Your task to perform on an android device: turn on airplane mode Image 0: 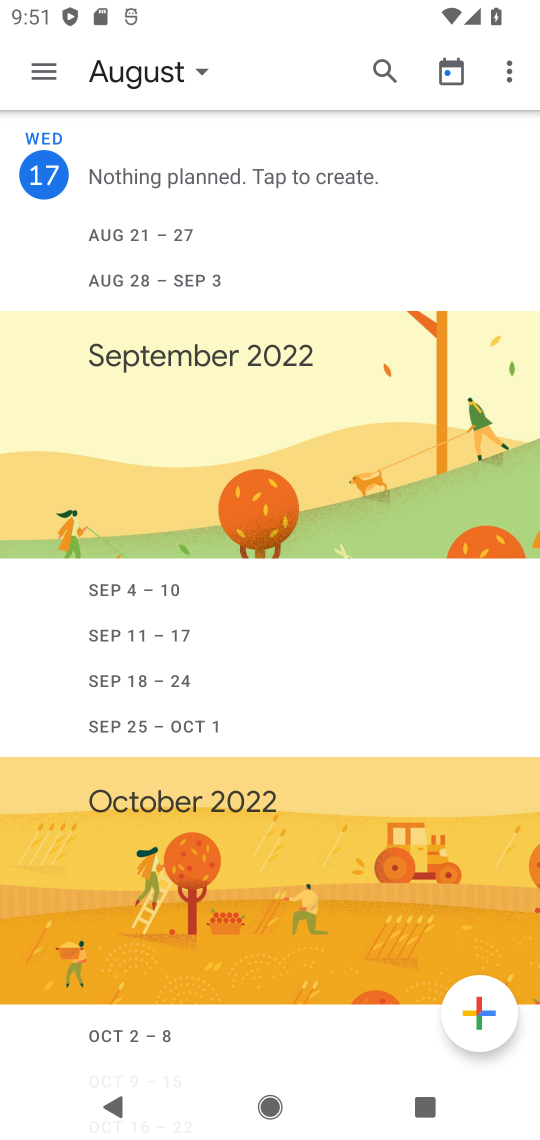
Step 0: press home button
Your task to perform on an android device: turn on airplane mode Image 1: 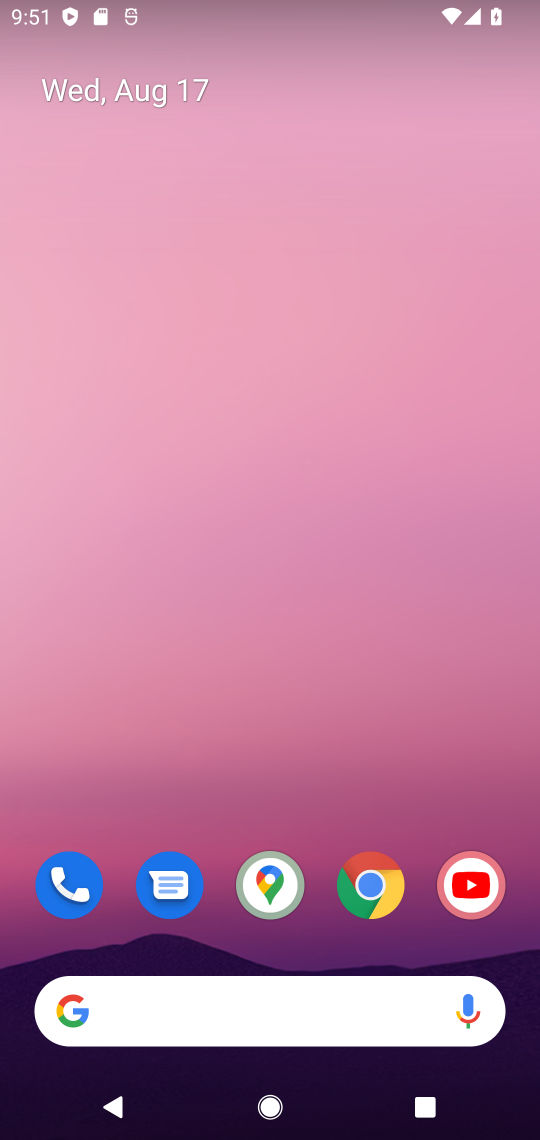
Step 1: drag from (416, 936) to (354, 56)
Your task to perform on an android device: turn on airplane mode Image 2: 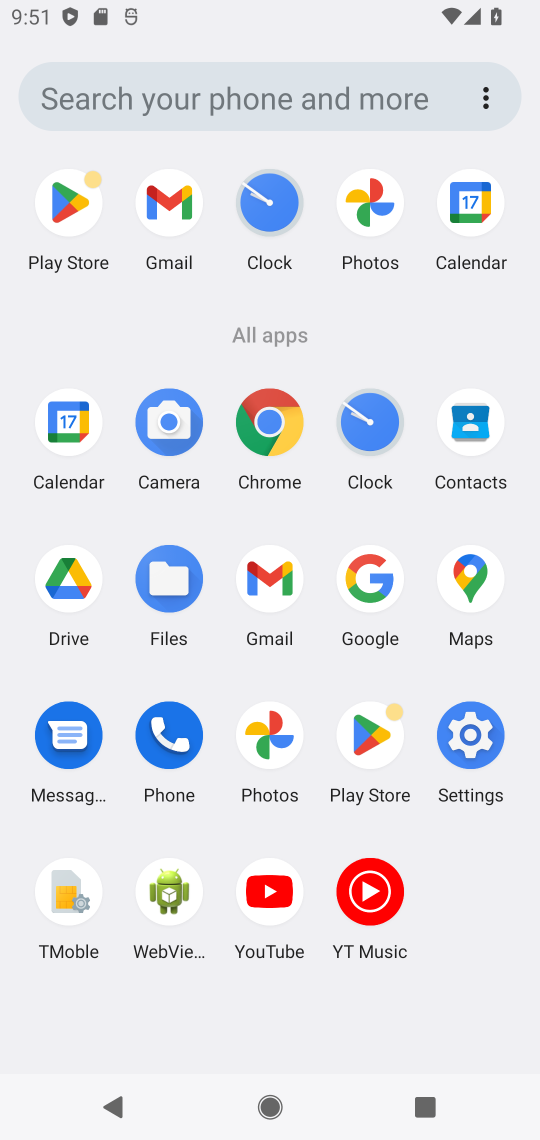
Step 2: click (468, 736)
Your task to perform on an android device: turn on airplane mode Image 3: 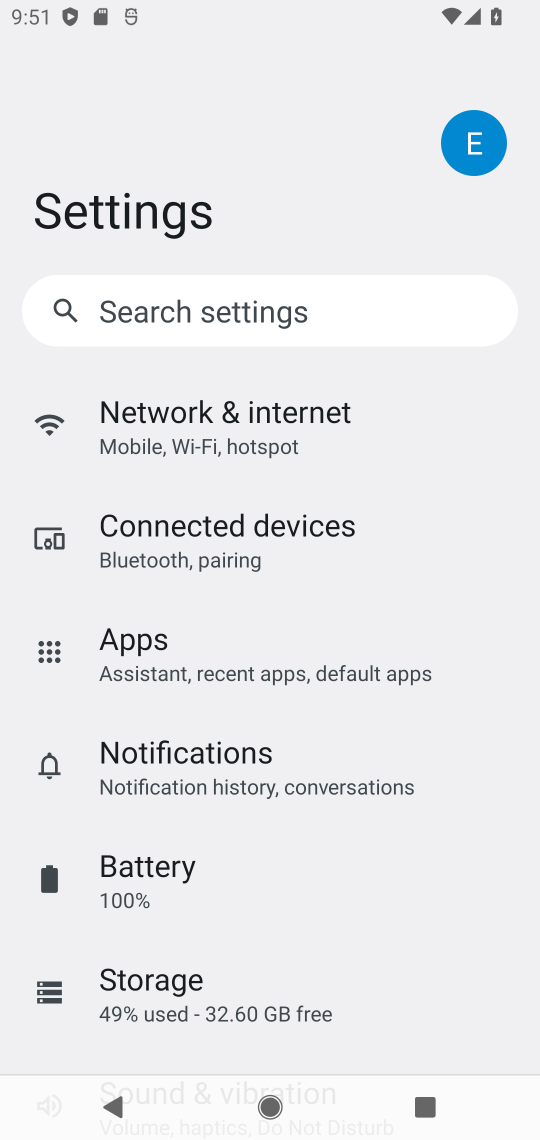
Step 3: click (170, 438)
Your task to perform on an android device: turn on airplane mode Image 4: 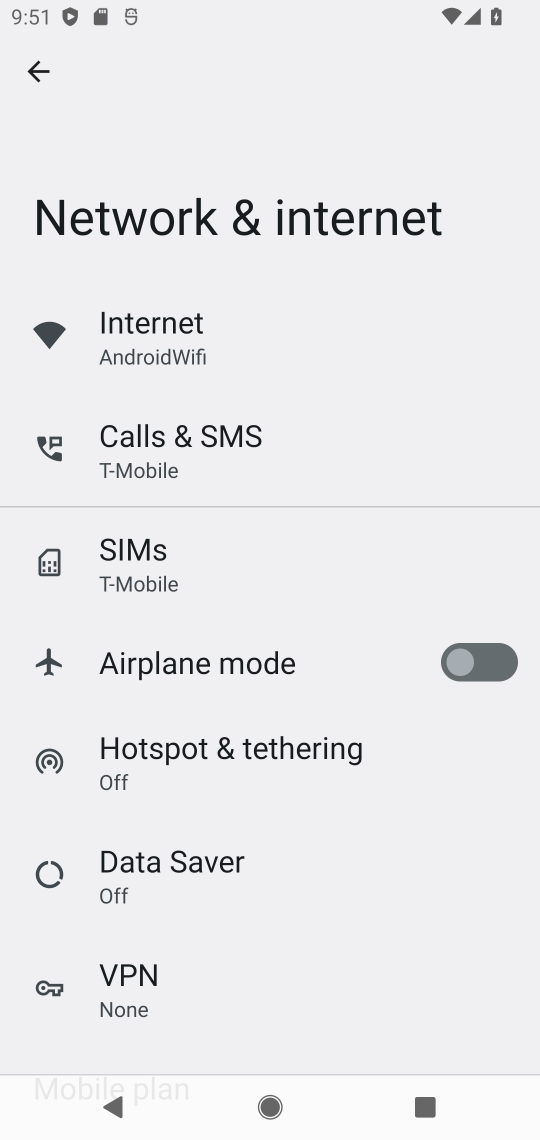
Step 4: click (492, 654)
Your task to perform on an android device: turn on airplane mode Image 5: 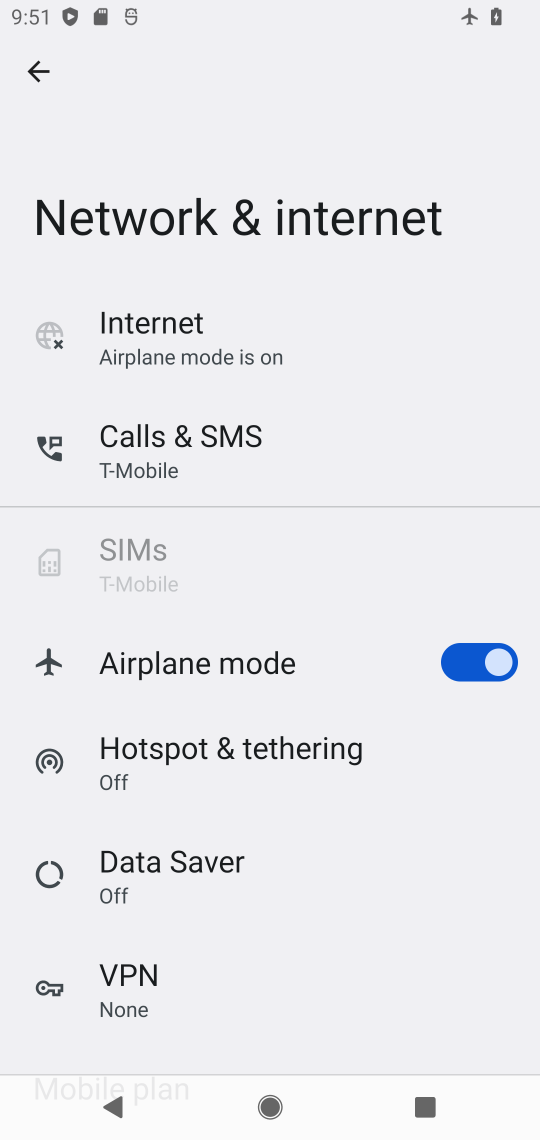
Step 5: task complete